Your task to perform on an android device: Open ESPN.com Image 0: 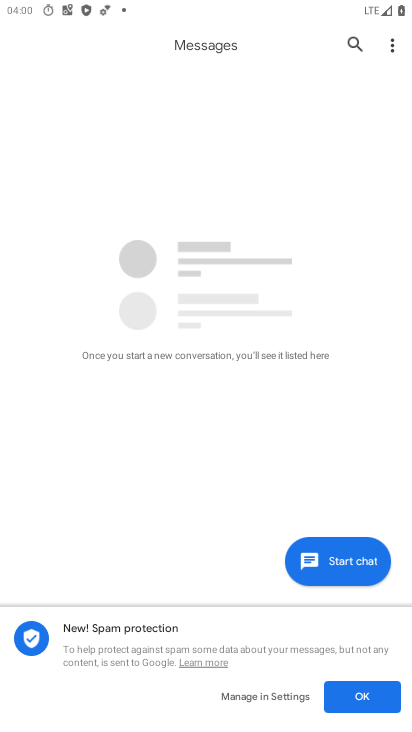
Step 0: press home button
Your task to perform on an android device: Open ESPN.com Image 1: 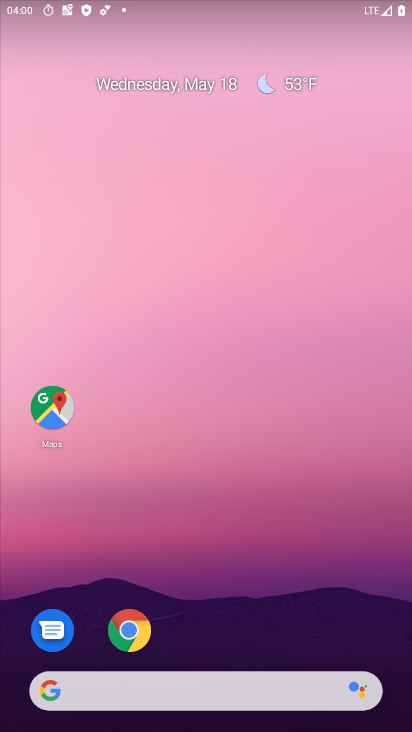
Step 1: click (136, 643)
Your task to perform on an android device: Open ESPN.com Image 2: 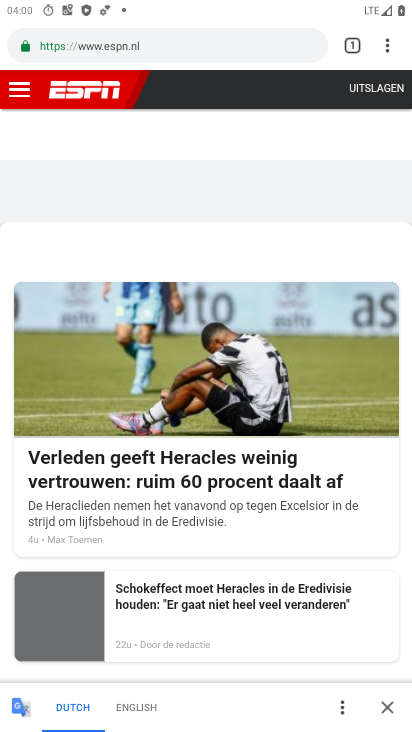
Step 2: task complete